Your task to perform on an android device: Open the calendar app, open the side menu, and click the "Day" option Image 0: 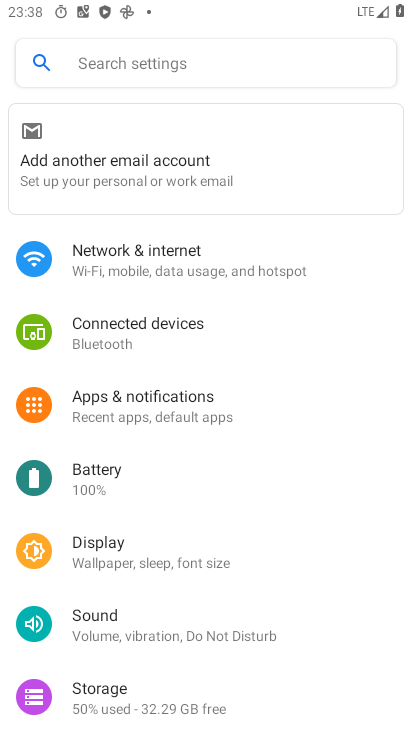
Step 0: press home button
Your task to perform on an android device: Open the calendar app, open the side menu, and click the "Day" option Image 1: 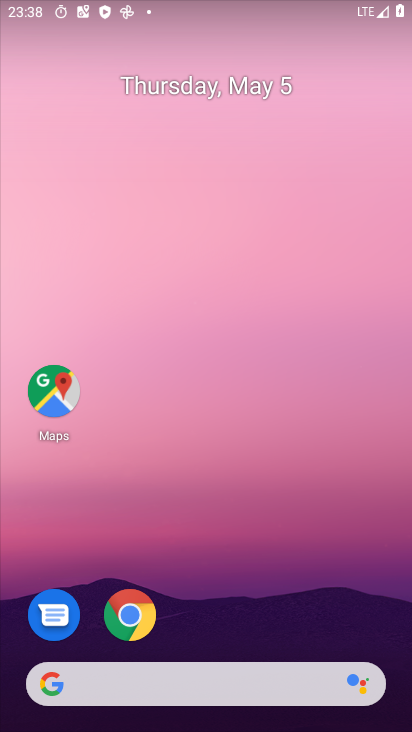
Step 1: drag from (228, 612) to (245, 51)
Your task to perform on an android device: Open the calendar app, open the side menu, and click the "Day" option Image 2: 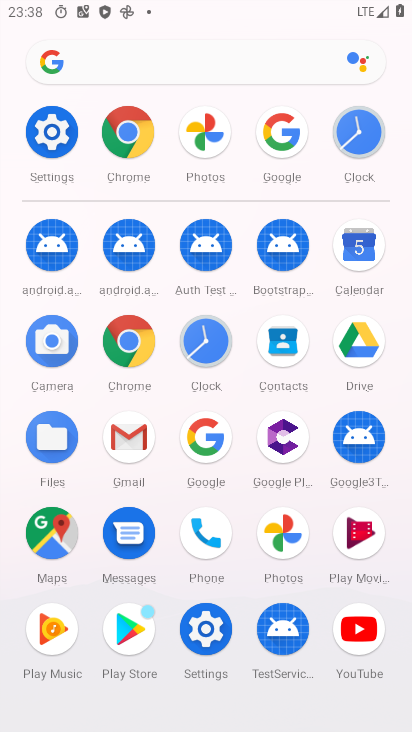
Step 2: click (357, 247)
Your task to perform on an android device: Open the calendar app, open the side menu, and click the "Day" option Image 3: 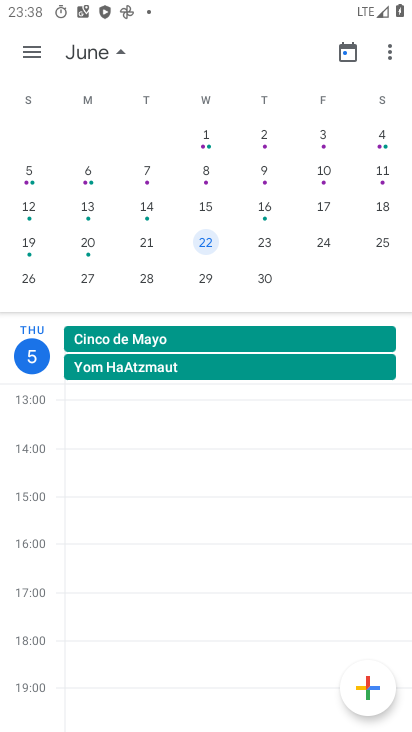
Step 3: click (116, 54)
Your task to perform on an android device: Open the calendar app, open the side menu, and click the "Day" option Image 4: 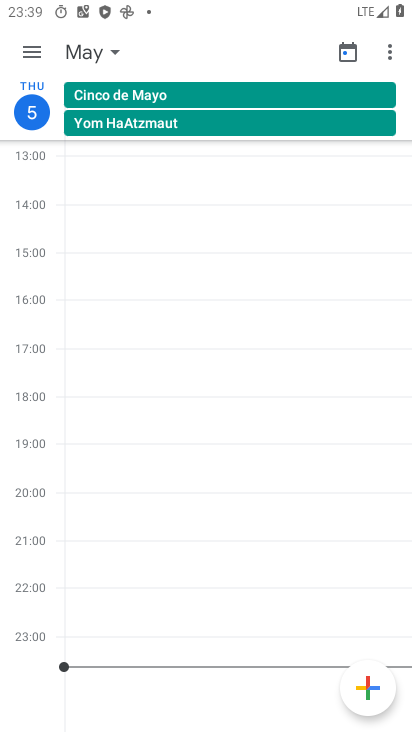
Step 4: click (33, 57)
Your task to perform on an android device: Open the calendar app, open the side menu, and click the "Day" option Image 5: 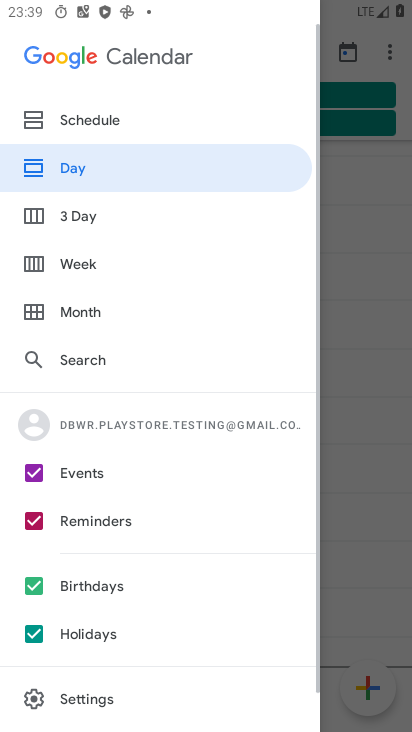
Step 5: click (99, 164)
Your task to perform on an android device: Open the calendar app, open the side menu, and click the "Day" option Image 6: 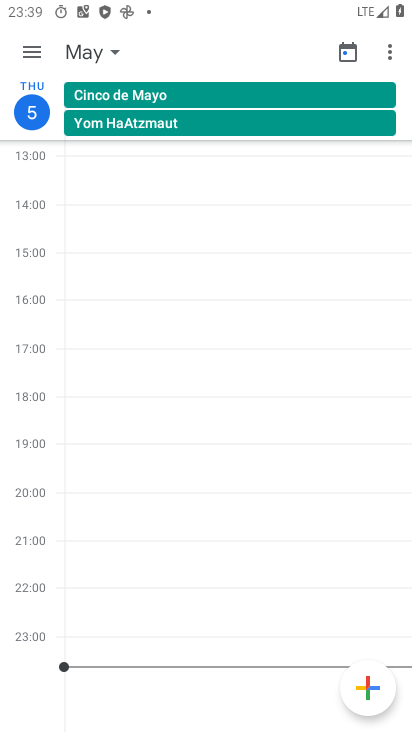
Step 6: task complete